Your task to perform on an android device: open wifi settings Image 0: 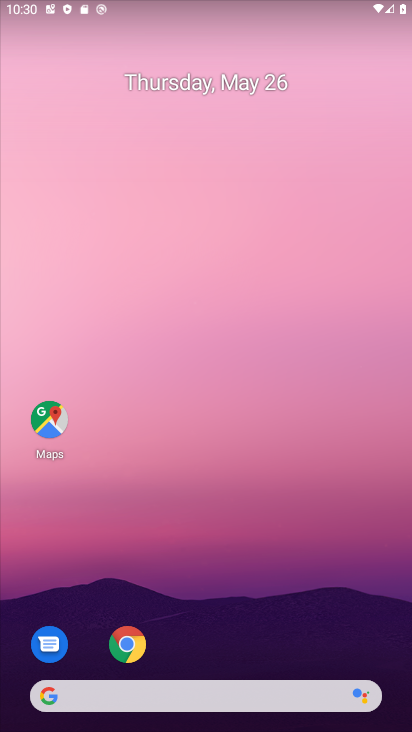
Step 0: drag from (371, 634) to (274, 96)
Your task to perform on an android device: open wifi settings Image 1: 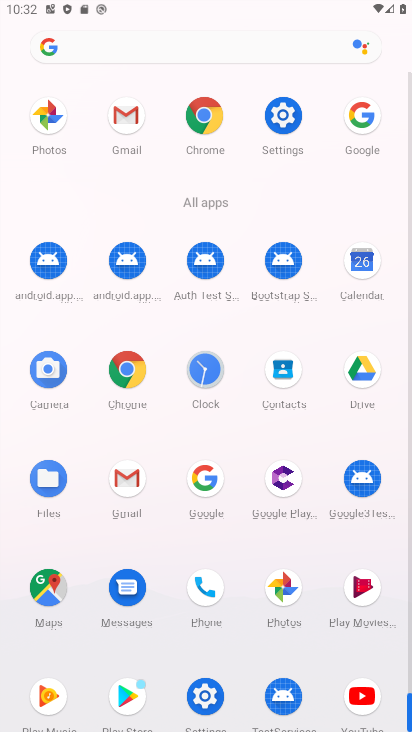
Step 1: click (270, 113)
Your task to perform on an android device: open wifi settings Image 2: 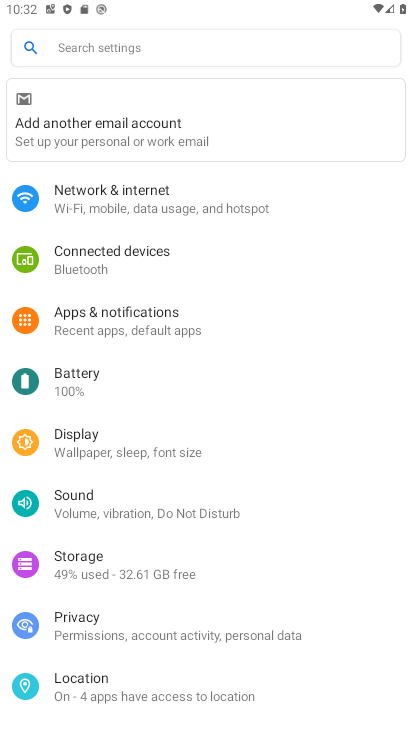
Step 2: click (83, 214)
Your task to perform on an android device: open wifi settings Image 3: 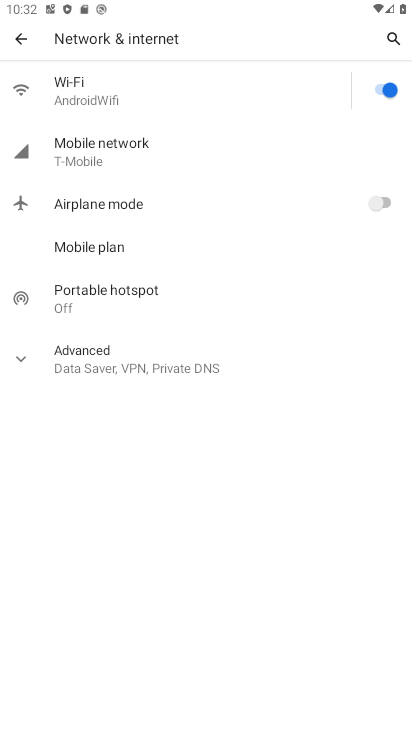
Step 3: click (130, 106)
Your task to perform on an android device: open wifi settings Image 4: 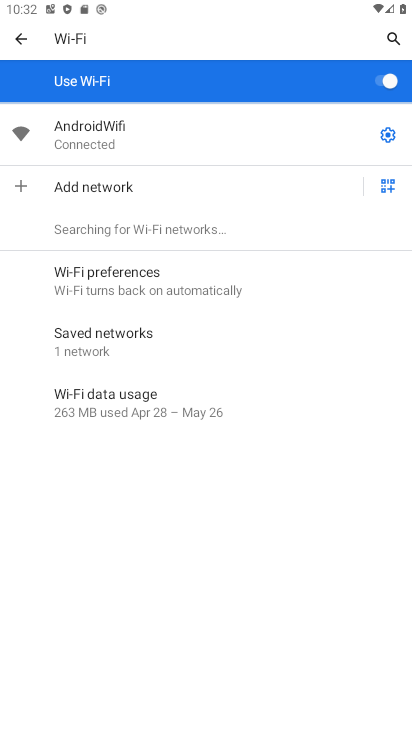
Step 4: task complete